Your task to perform on an android device: install app "Gmail" Image 0: 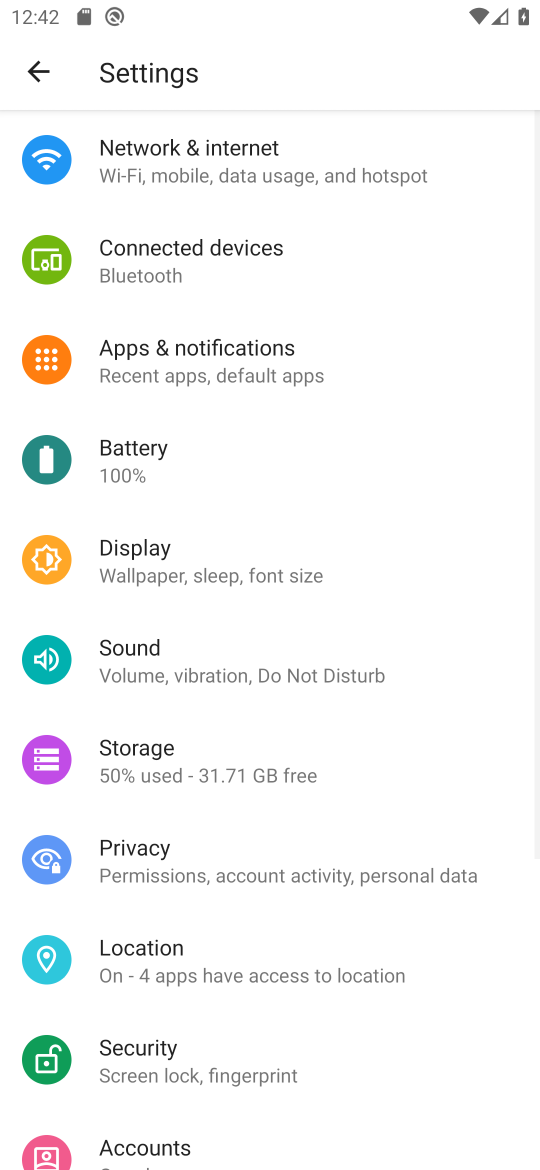
Step 0: press home button
Your task to perform on an android device: install app "Gmail" Image 1: 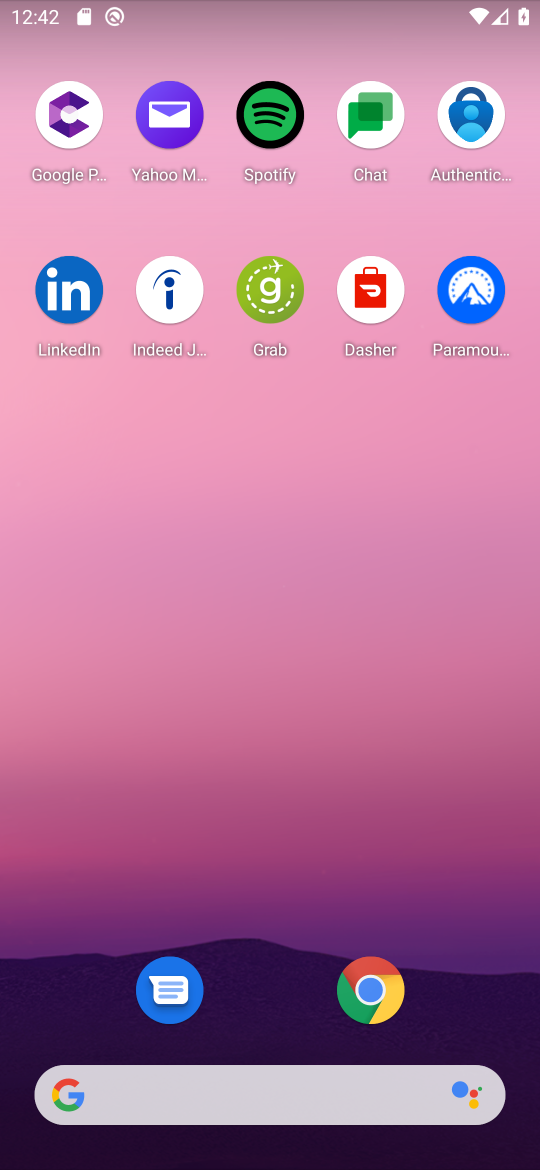
Step 1: drag from (300, 858) to (279, 107)
Your task to perform on an android device: install app "Gmail" Image 2: 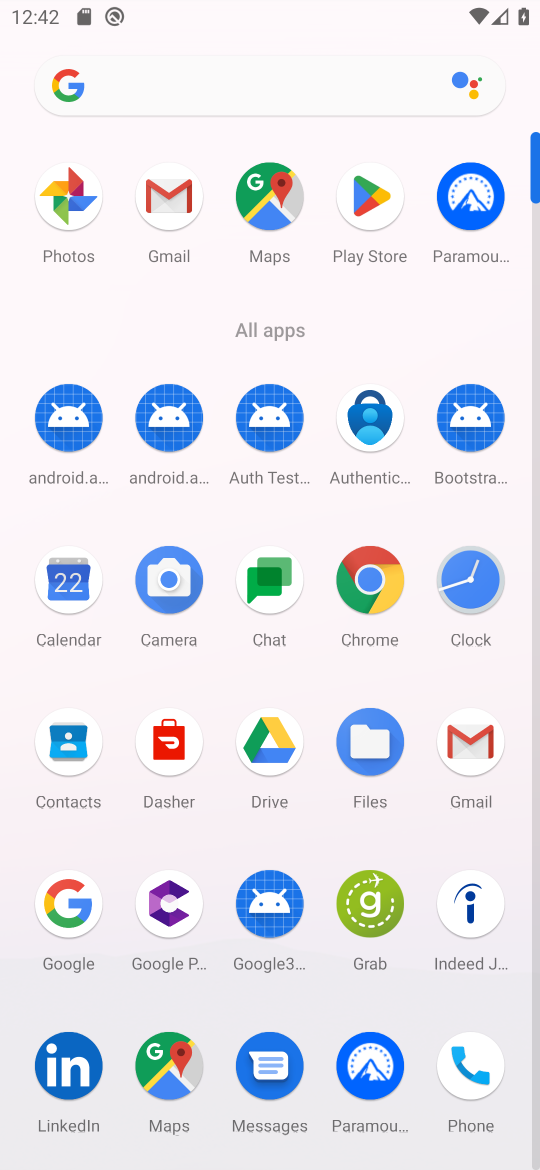
Step 2: click (360, 204)
Your task to perform on an android device: install app "Gmail" Image 3: 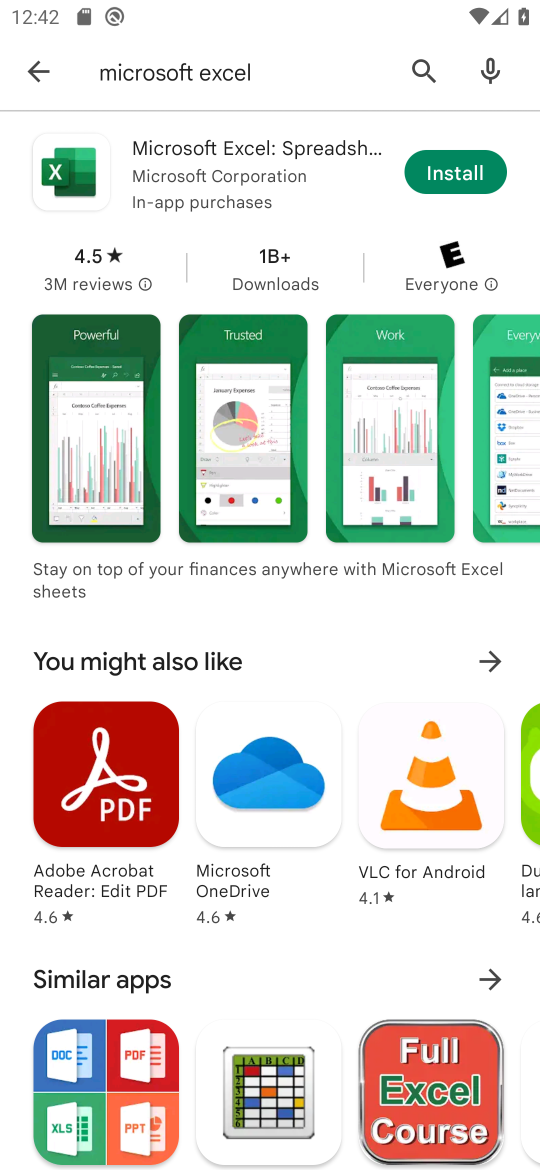
Step 3: click (428, 64)
Your task to perform on an android device: install app "Gmail" Image 4: 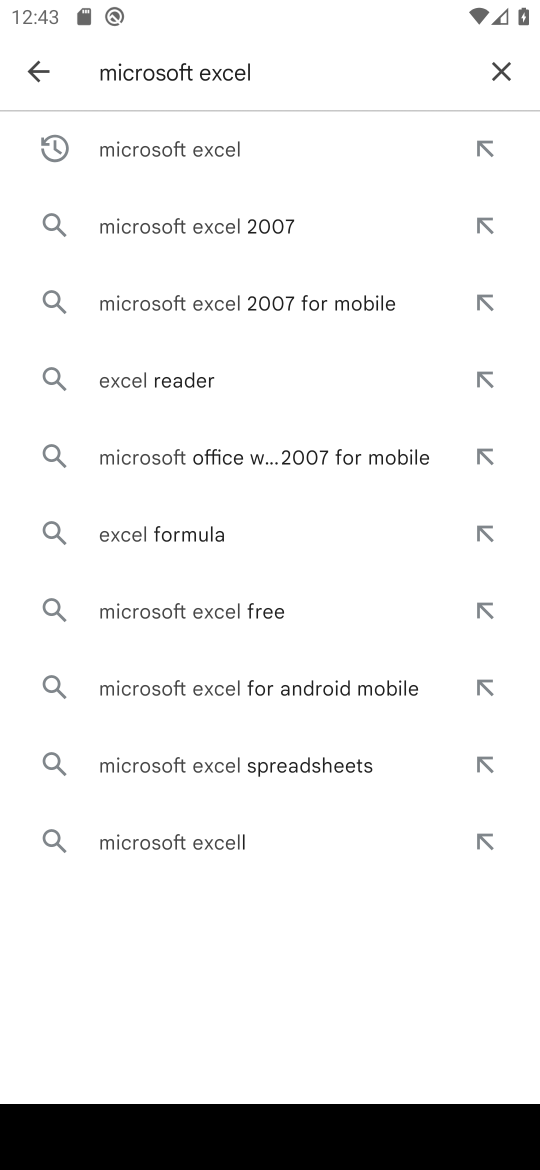
Step 4: click (520, 78)
Your task to perform on an android device: install app "Gmail" Image 5: 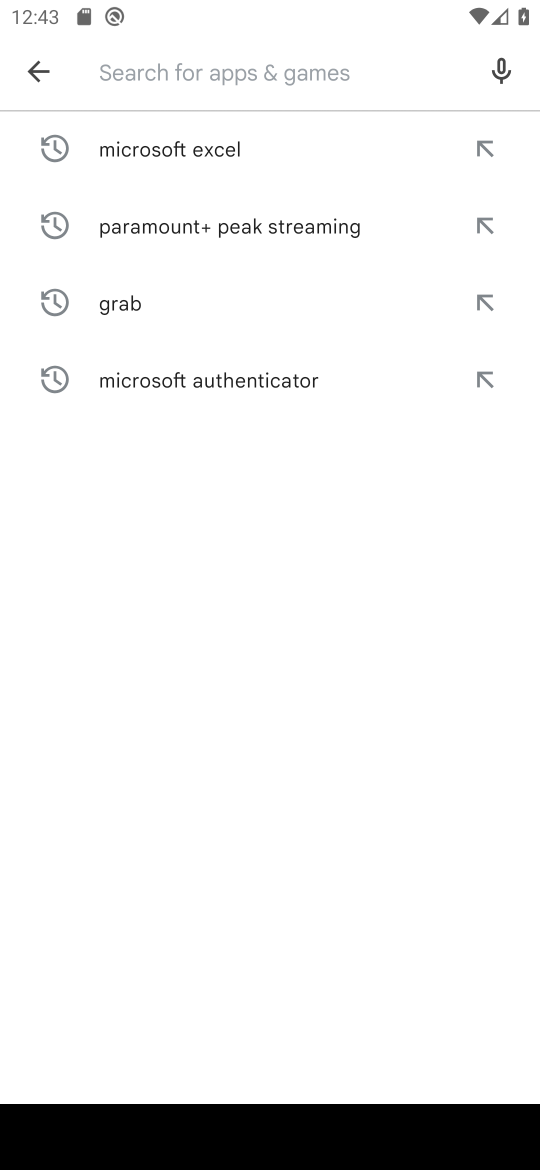
Step 5: type "Gmail"
Your task to perform on an android device: install app "Gmail" Image 6: 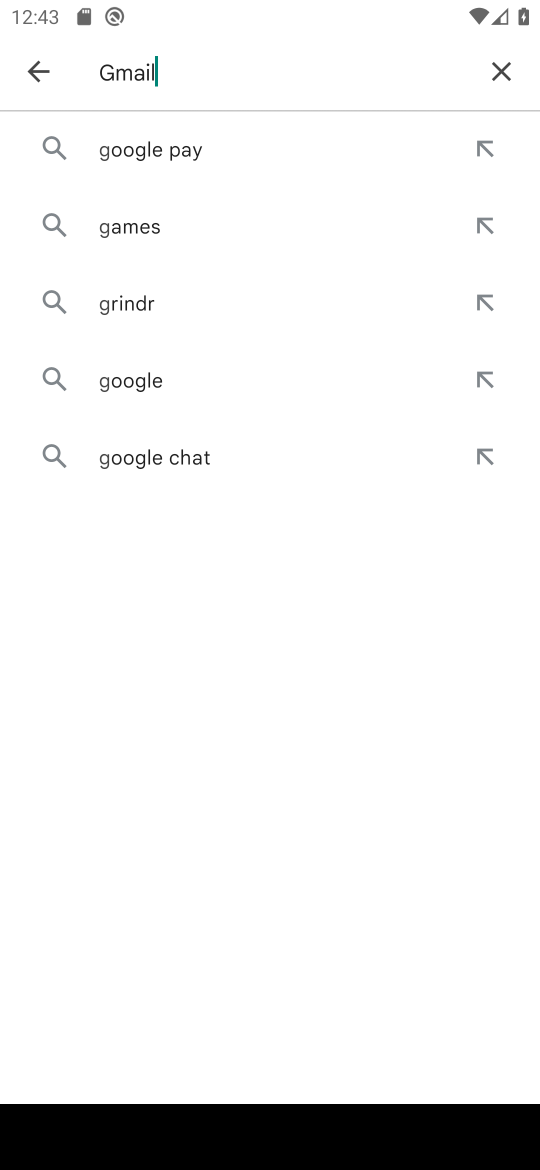
Step 6: type ""
Your task to perform on an android device: install app "Gmail" Image 7: 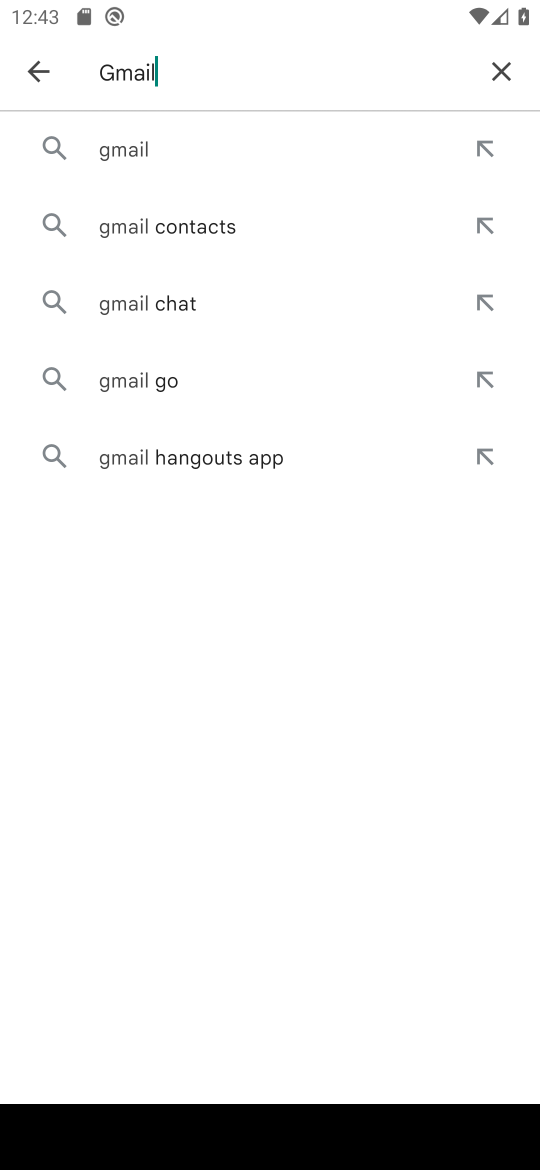
Step 7: click (198, 141)
Your task to perform on an android device: install app "Gmail" Image 8: 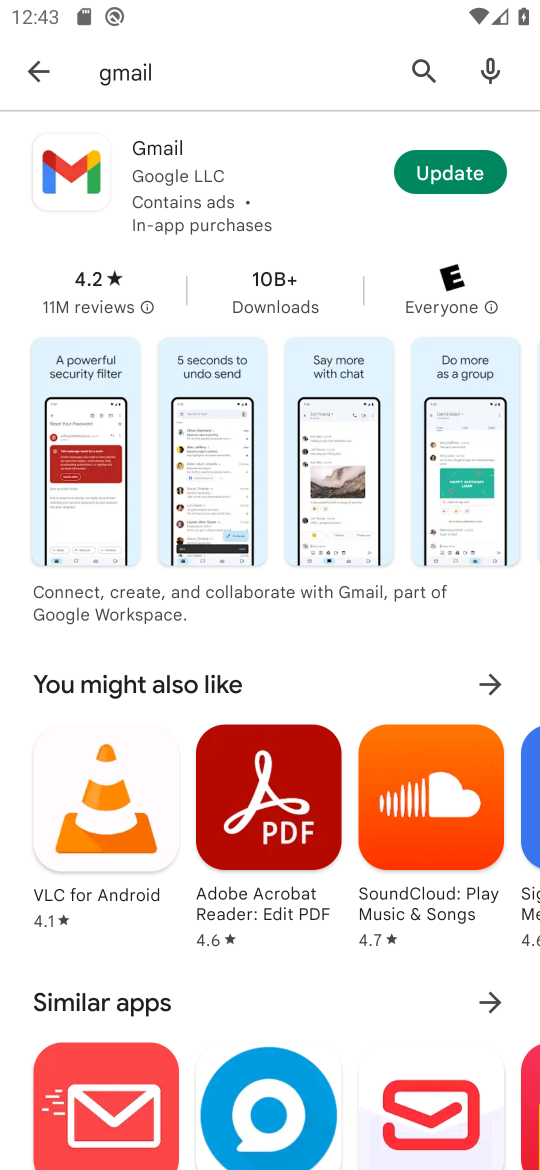
Step 8: click (228, 156)
Your task to perform on an android device: install app "Gmail" Image 9: 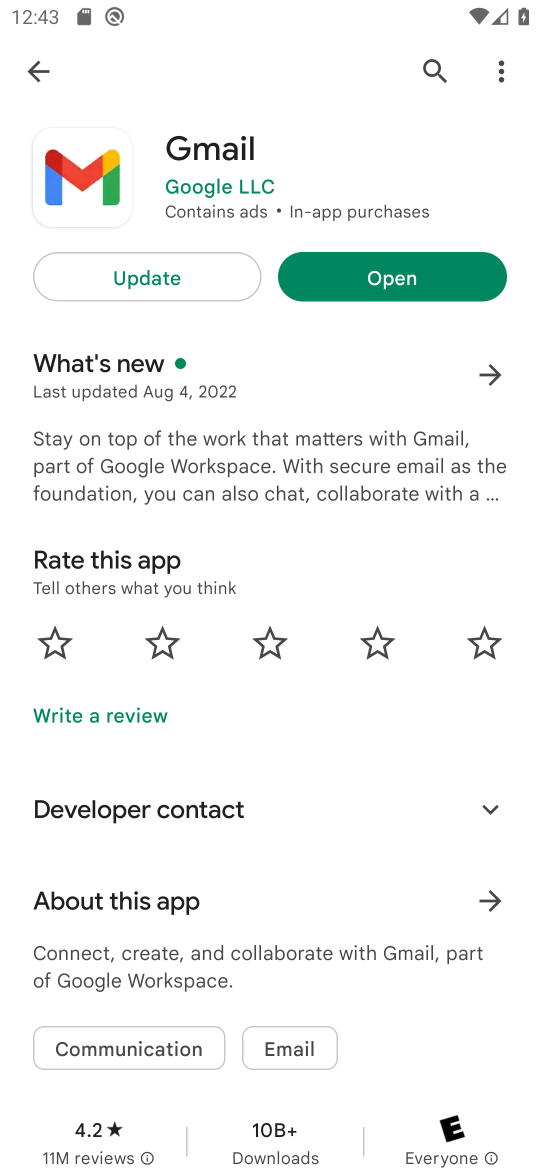
Step 9: task complete